Your task to perform on an android device: manage bookmarks in the chrome app Image 0: 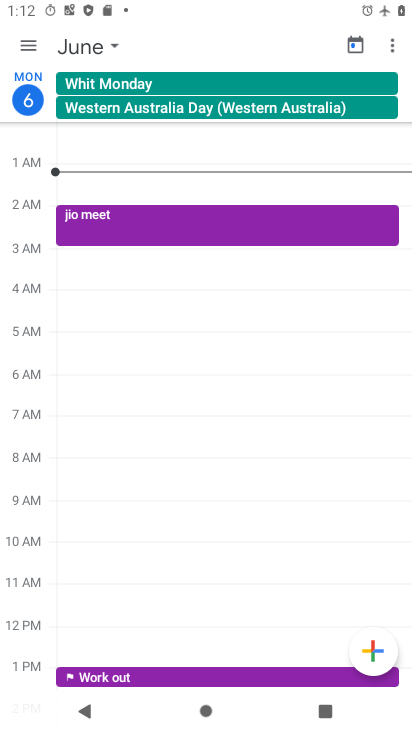
Step 0: press home button
Your task to perform on an android device: manage bookmarks in the chrome app Image 1: 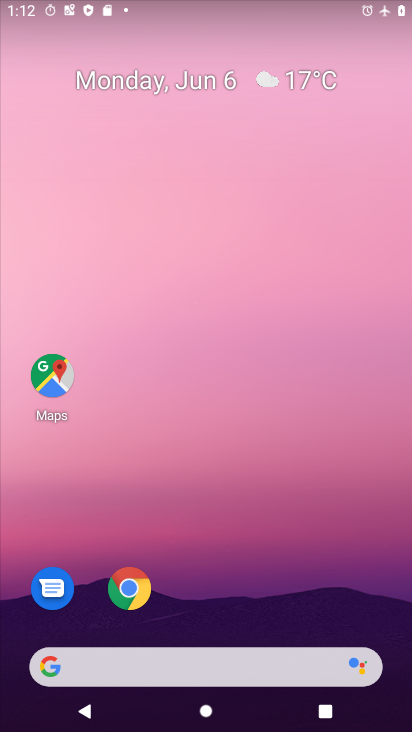
Step 1: click (131, 583)
Your task to perform on an android device: manage bookmarks in the chrome app Image 2: 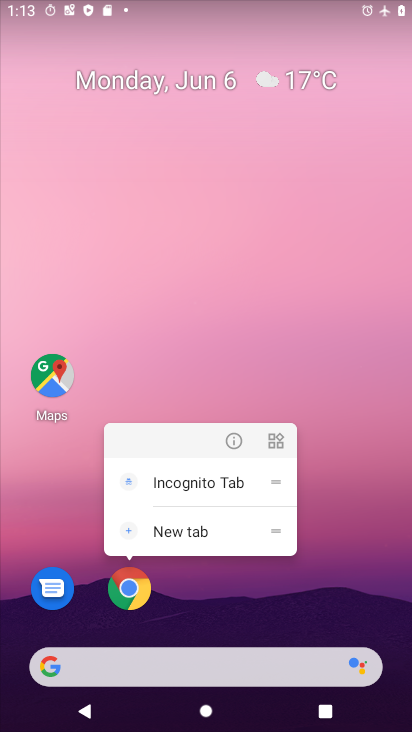
Step 2: click (129, 593)
Your task to perform on an android device: manage bookmarks in the chrome app Image 3: 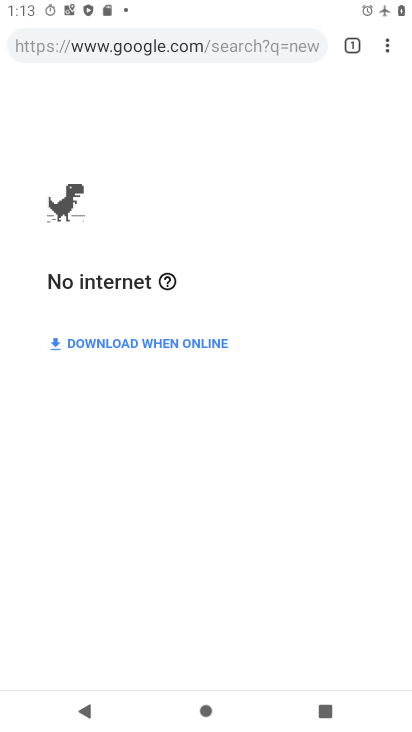
Step 3: task complete